Your task to perform on an android device: check out phone information Image 0: 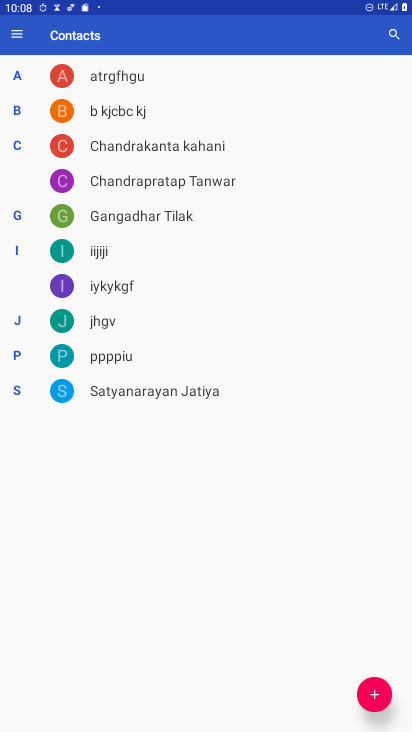
Step 0: press home button
Your task to perform on an android device: check out phone information Image 1: 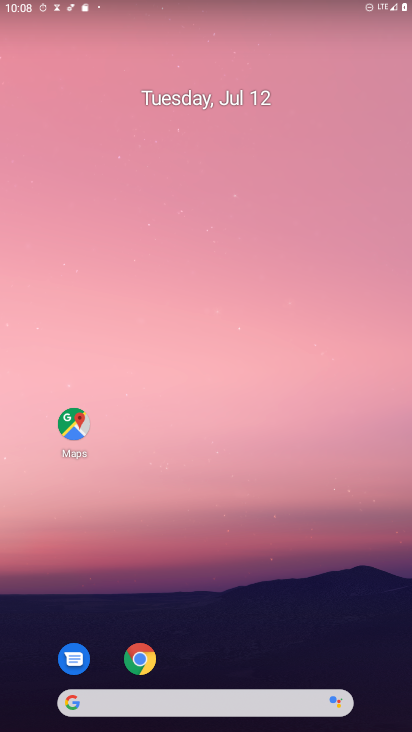
Step 1: drag from (217, 707) to (191, 157)
Your task to perform on an android device: check out phone information Image 2: 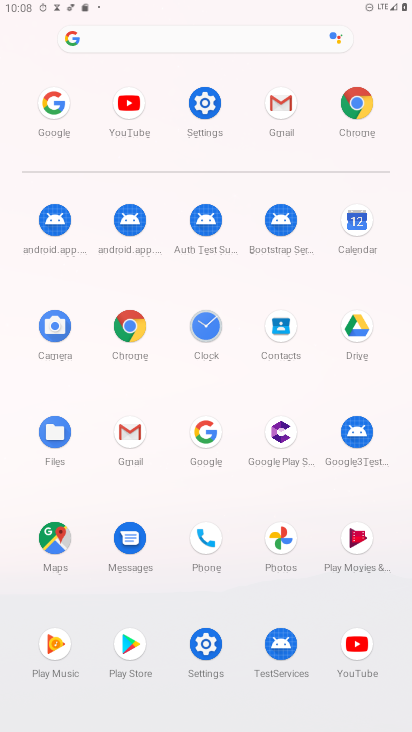
Step 2: click (198, 106)
Your task to perform on an android device: check out phone information Image 3: 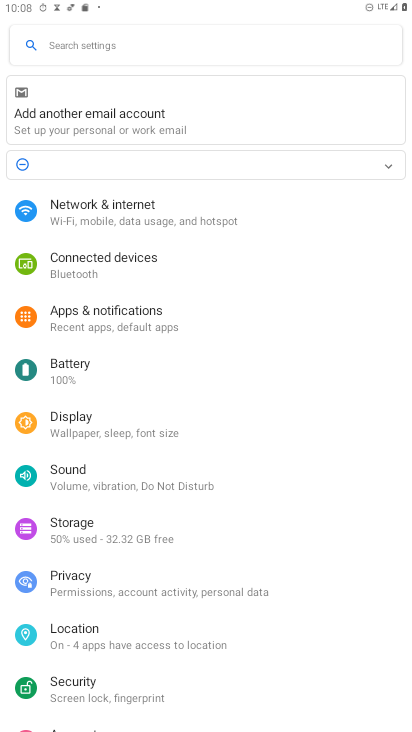
Step 3: drag from (142, 468) to (172, 391)
Your task to perform on an android device: check out phone information Image 4: 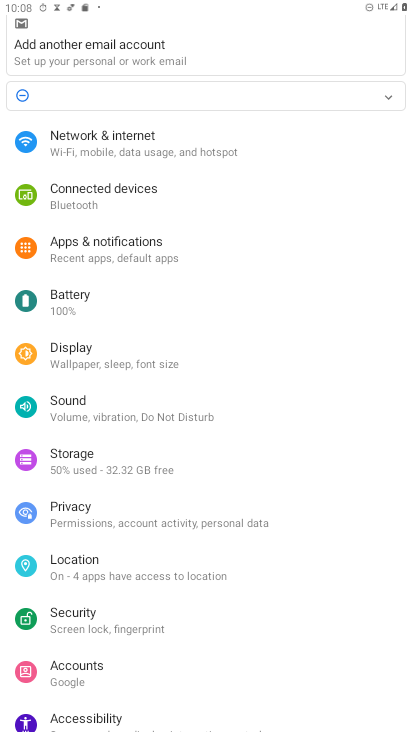
Step 4: drag from (131, 495) to (179, 406)
Your task to perform on an android device: check out phone information Image 5: 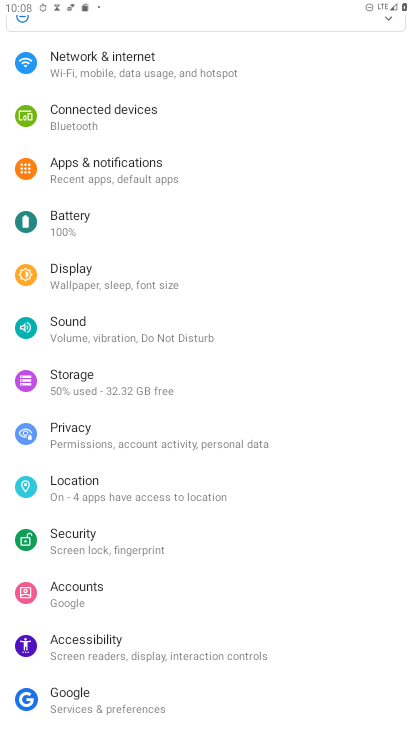
Step 5: drag from (137, 565) to (188, 465)
Your task to perform on an android device: check out phone information Image 6: 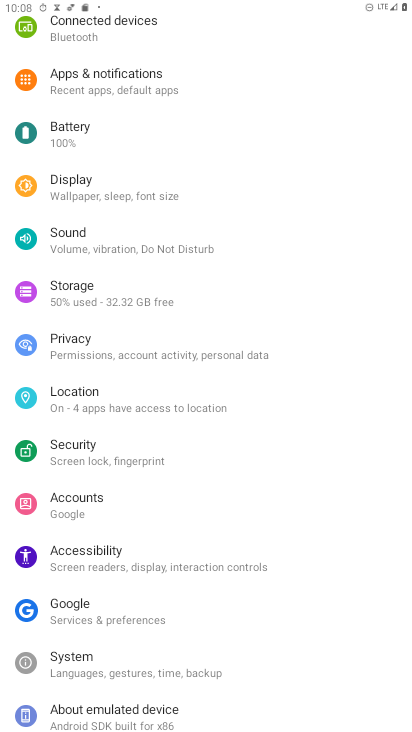
Step 6: drag from (152, 613) to (209, 529)
Your task to perform on an android device: check out phone information Image 7: 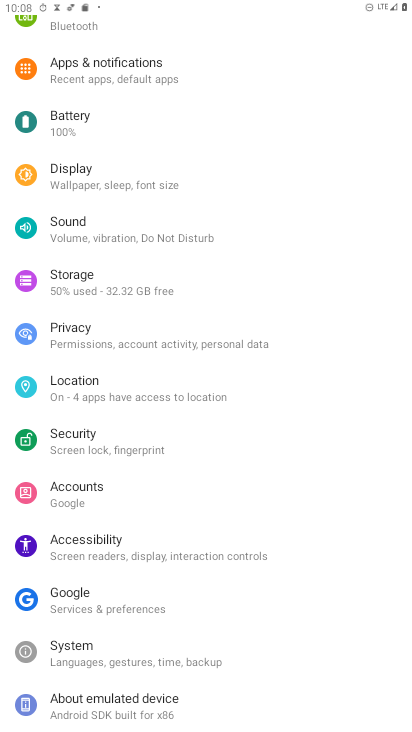
Step 7: click (161, 711)
Your task to perform on an android device: check out phone information Image 8: 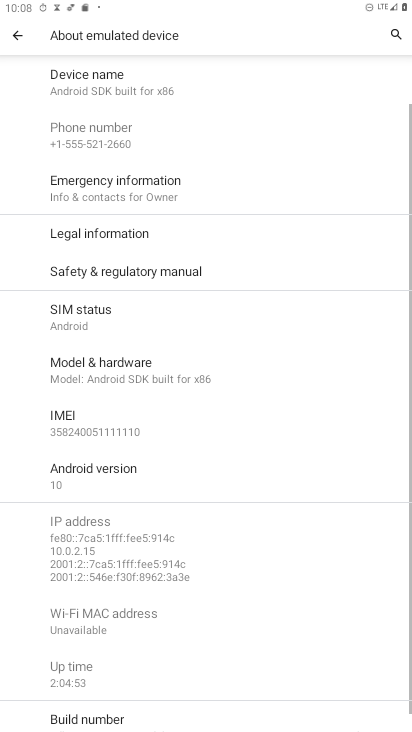
Step 8: task complete